Your task to perform on an android device: open app "eBay: The shopping marketplace" (install if not already installed) Image 0: 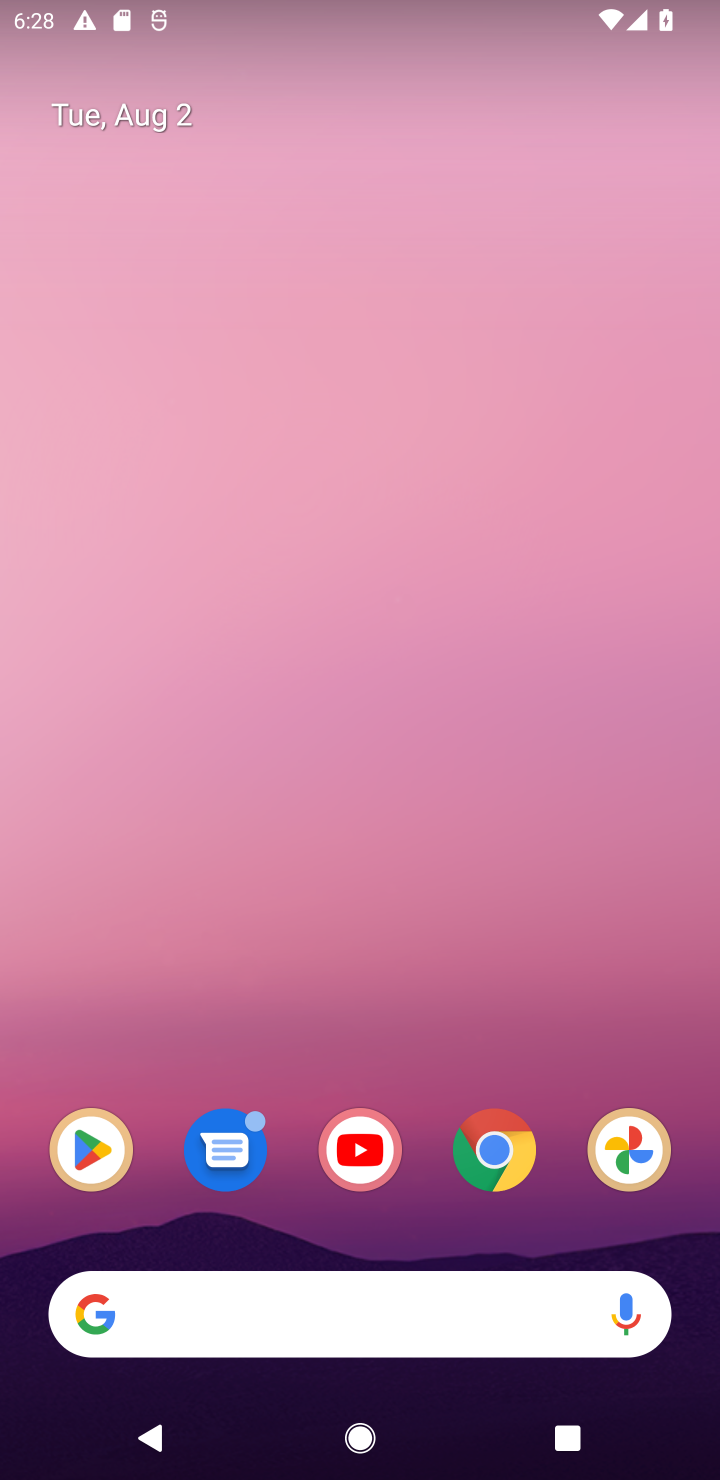
Step 0: drag from (264, 1165) to (206, 1415)
Your task to perform on an android device: open app "eBay: The shopping marketplace" (install if not already installed) Image 1: 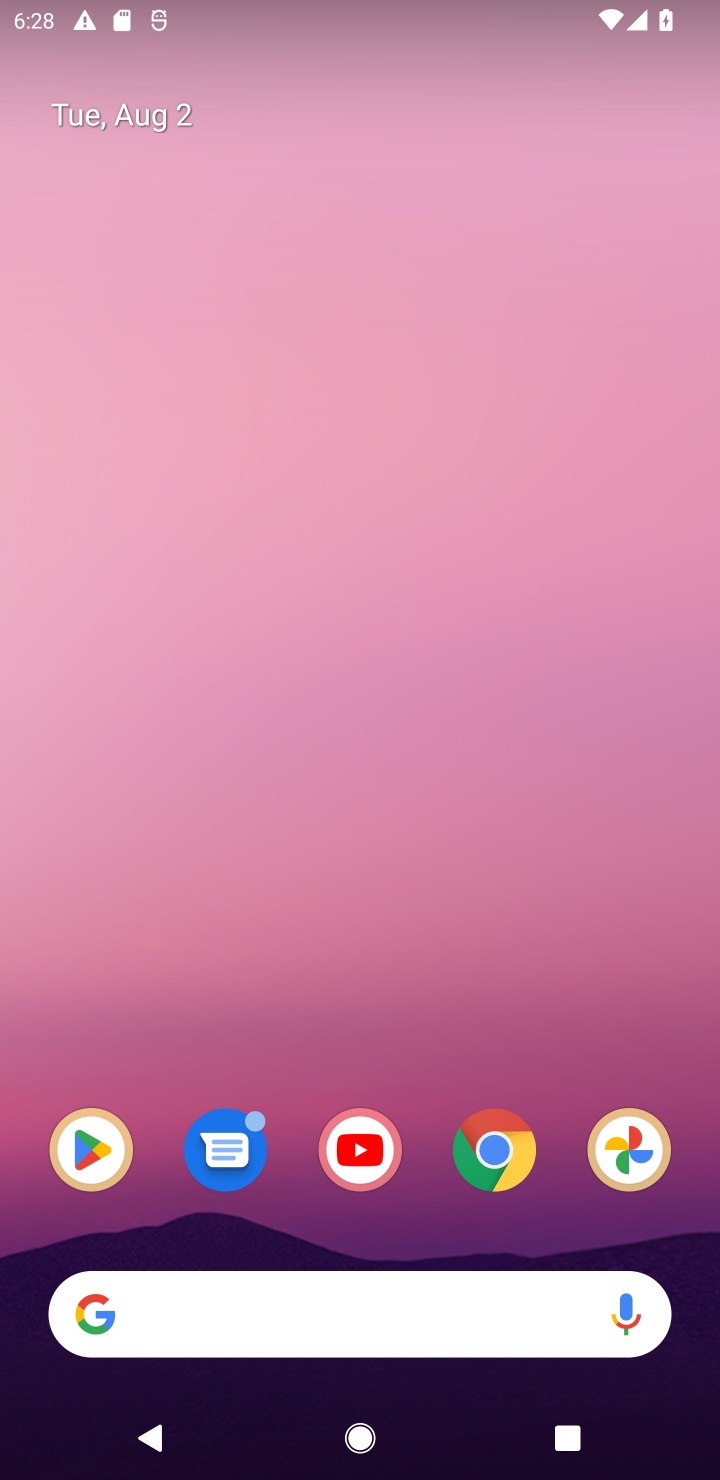
Step 1: drag from (426, 1253) to (711, 499)
Your task to perform on an android device: open app "eBay: The shopping marketplace" (install if not already installed) Image 2: 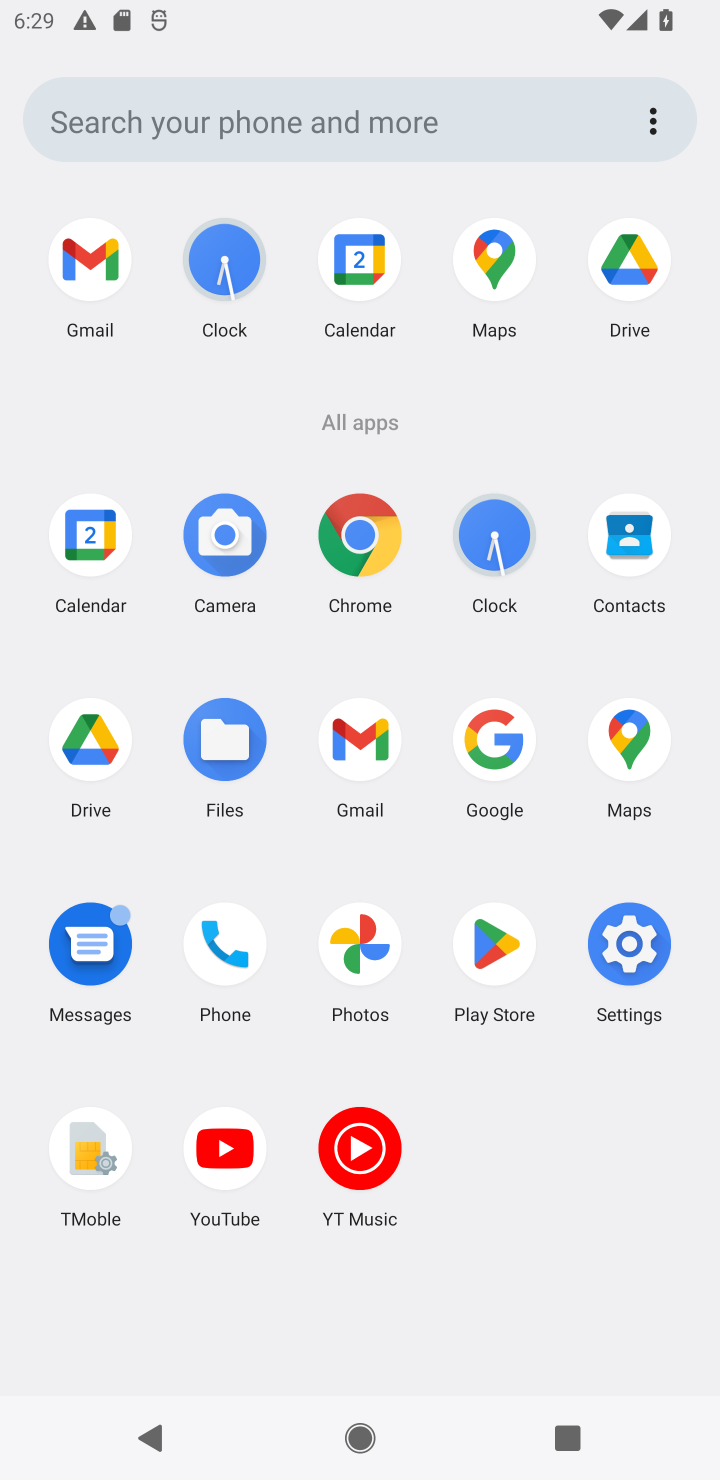
Step 2: click (488, 960)
Your task to perform on an android device: open app "eBay: The shopping marketplace" (install if not already installed) Image 3: 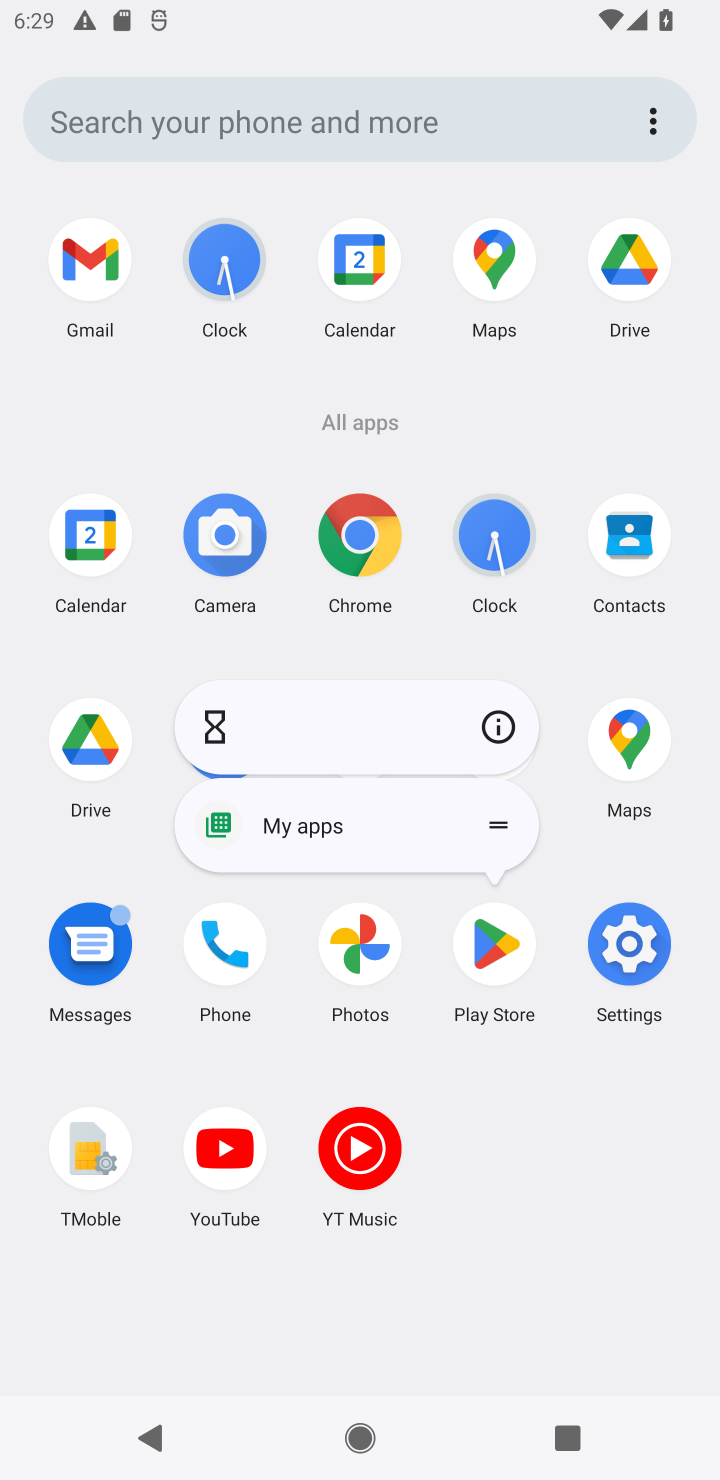
Step 3: click (488, 960)
Your task to perform on an android device: open app "eBay: The shopping marketplace" (install if not already installed) Image 4: 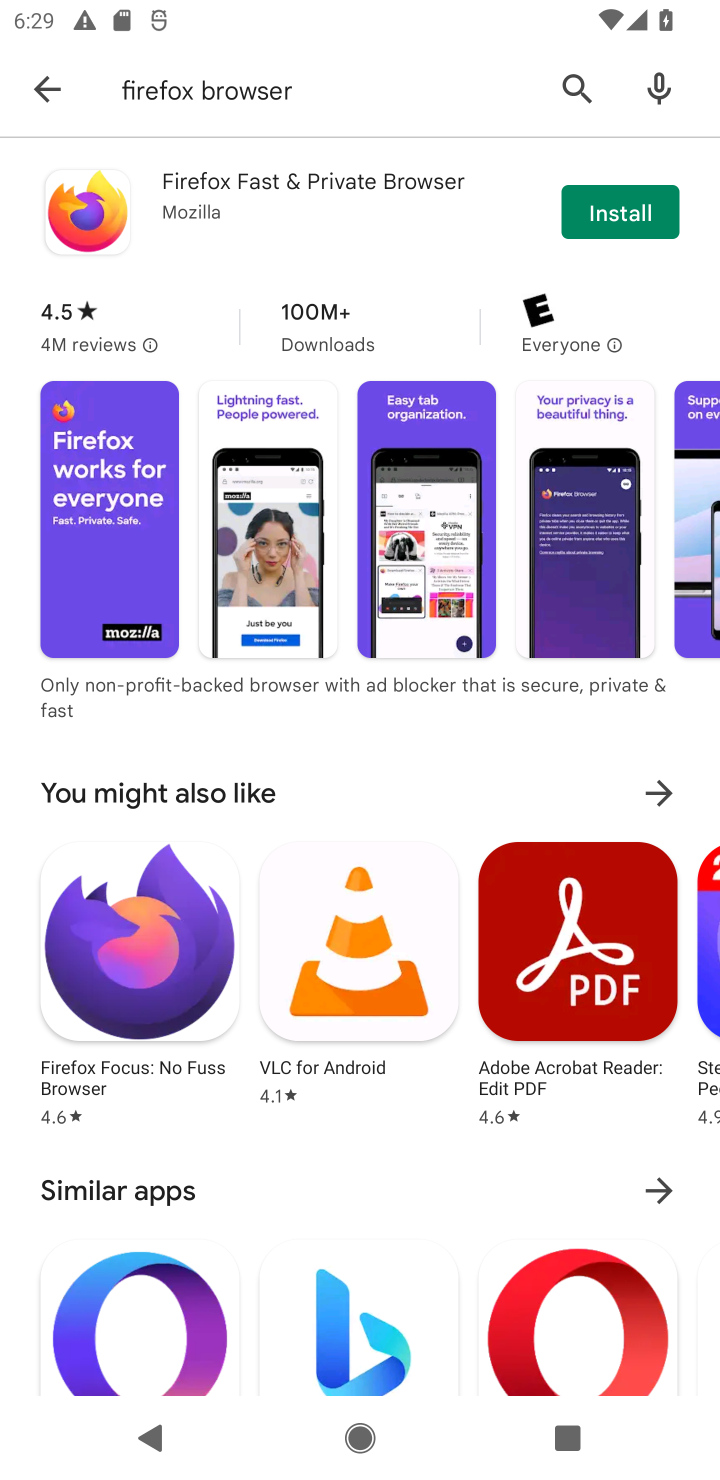
Step 4: click (49, 72)
Your task to perform on an android device: open app "eBay: The shopping marketplace" (install if not already installed) Image 5: 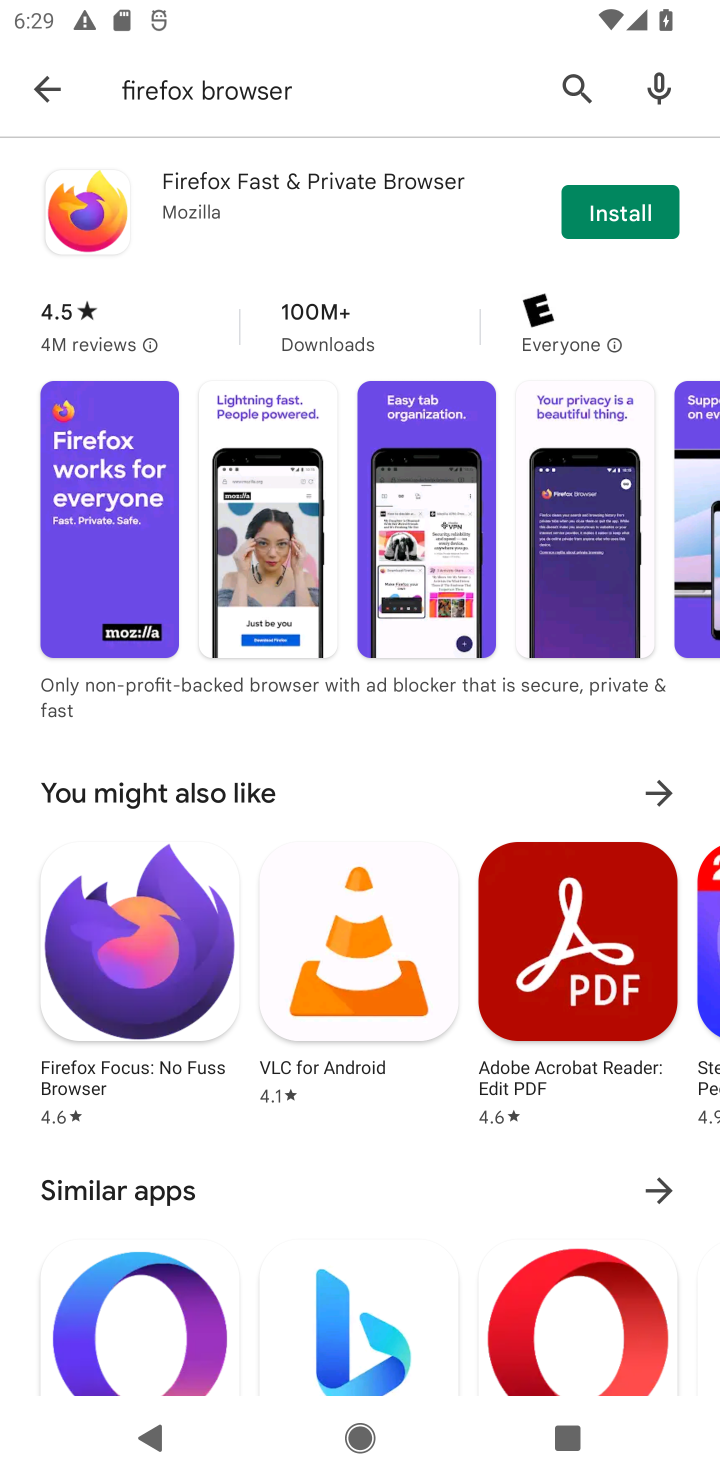
Step 5: click (41, 103)
Your task to perform on an android device: open app "eBay: The shopping marketplace" (install if not already installed) Image 6: 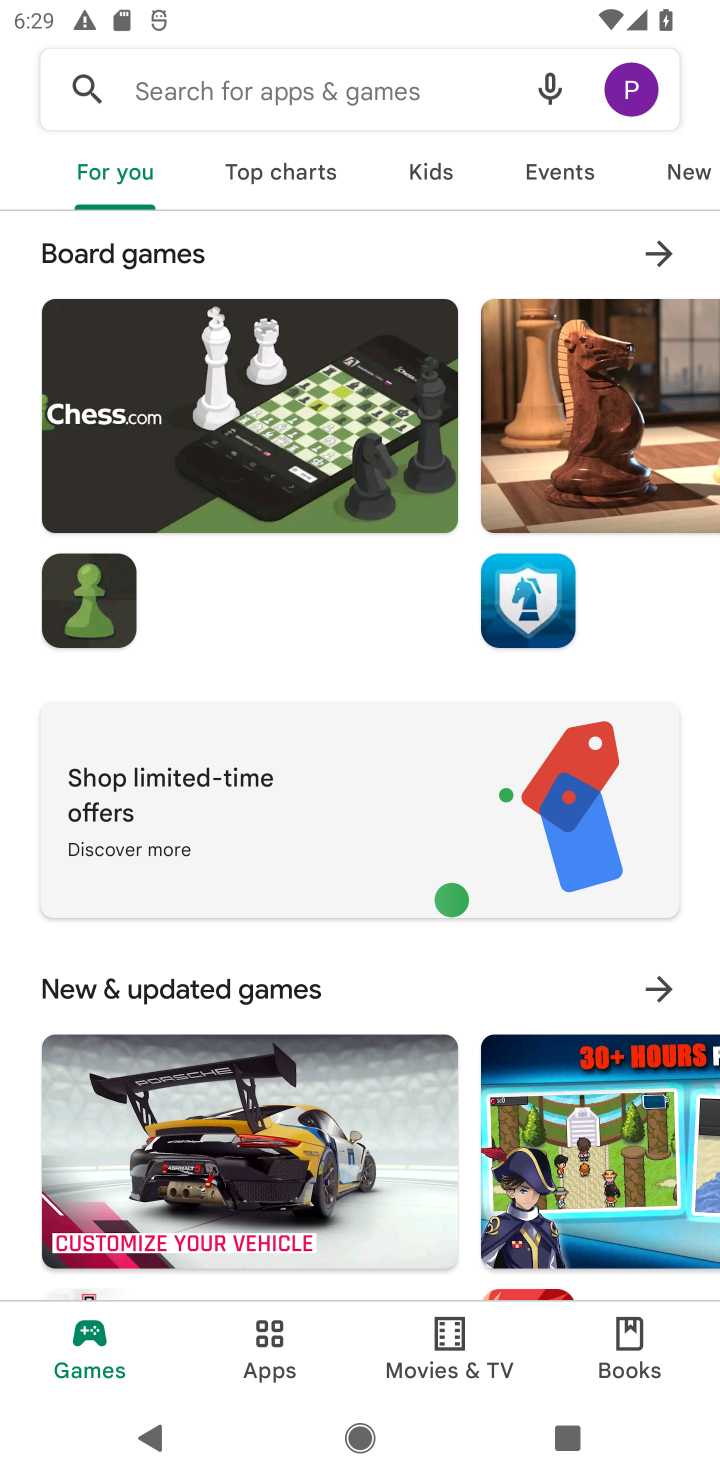
Step 6: click (134, 76)
Your task to perform on an android device: open app "eBay: The shopping marketplace" (install if not already installed) Image 7: 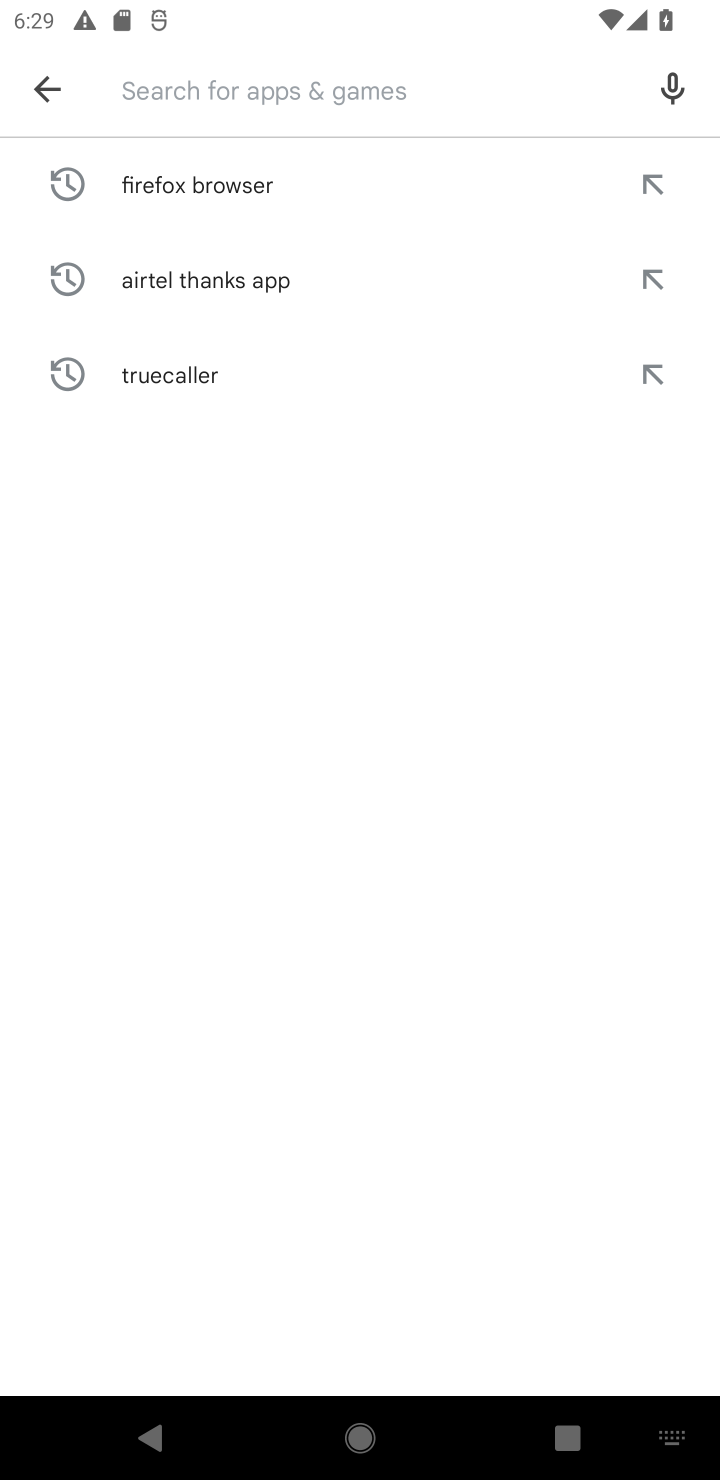
Step 7: drag from (589, 1163) to (107, 1478)
Your task to perform on an android device: open app "eBay: The shopping marketplace" (install if not already installed) Image 8: 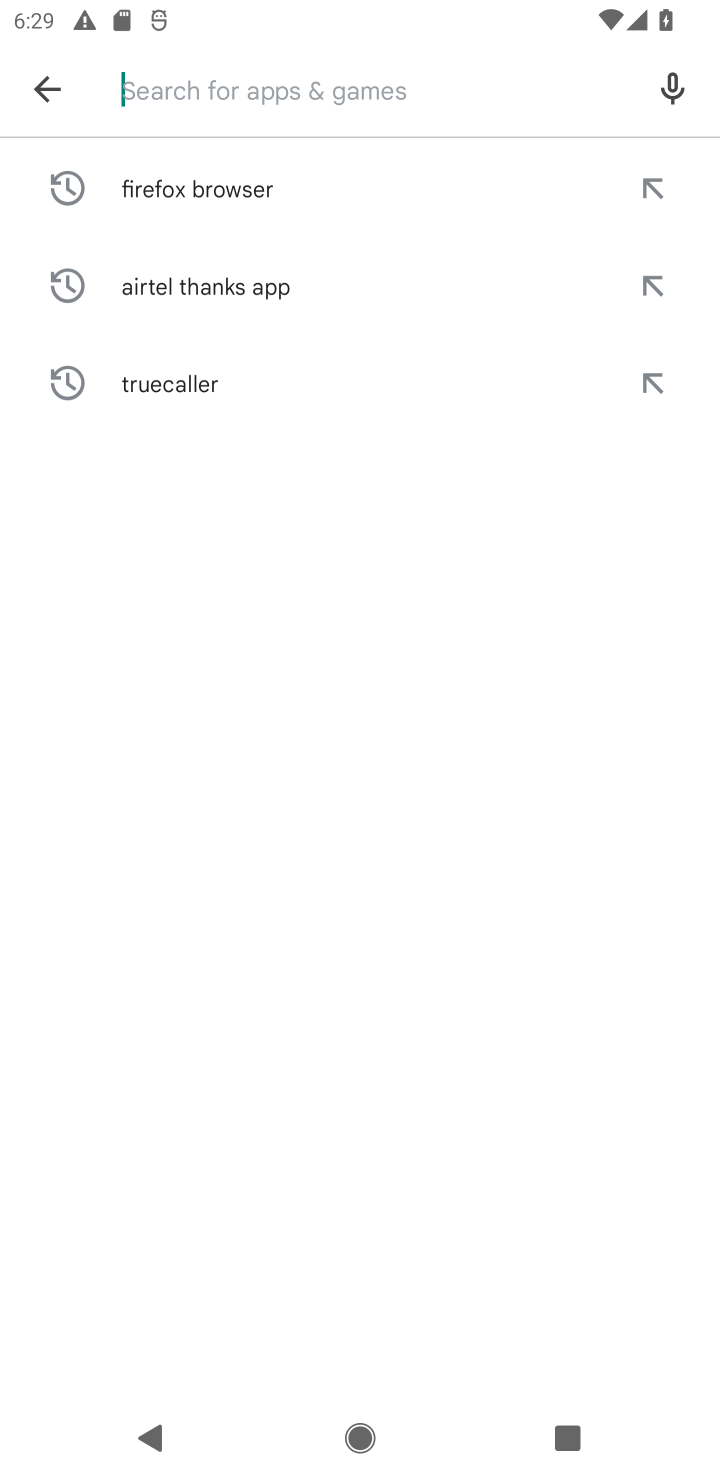
Step 8: type "eBay"
Your task to perform on an android device: open app "eBay: The shopping marketplace" (install if not already installed) Image 9: 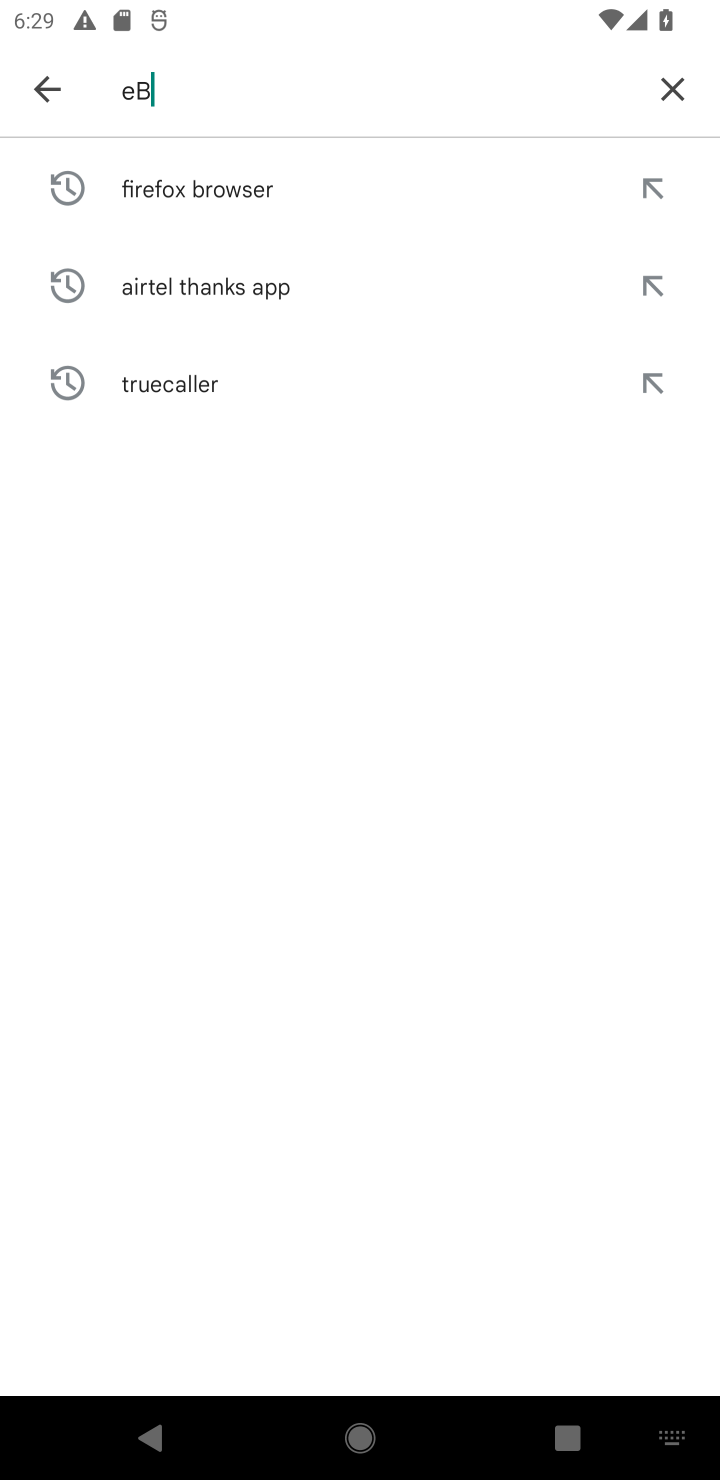
Step 9: type ""
Your task to perform on an android device: open app "eBay: The shopping marketplace" (install if not already installed) Image 10: 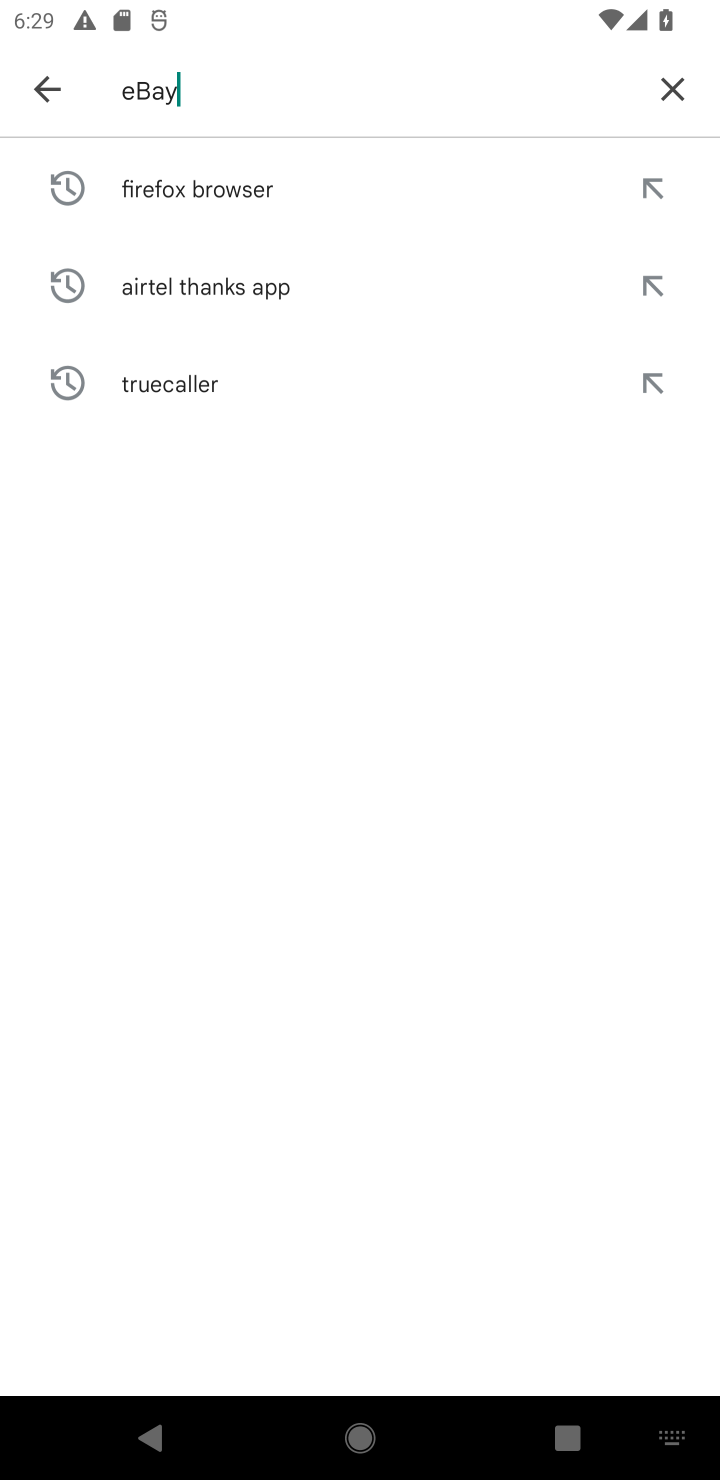
Step 10: drag from (107, 1478) to (590, 386)
Your task to perform on an android device: open app "eBay: The shopping marketplace" (install if not already installed) Image 11: 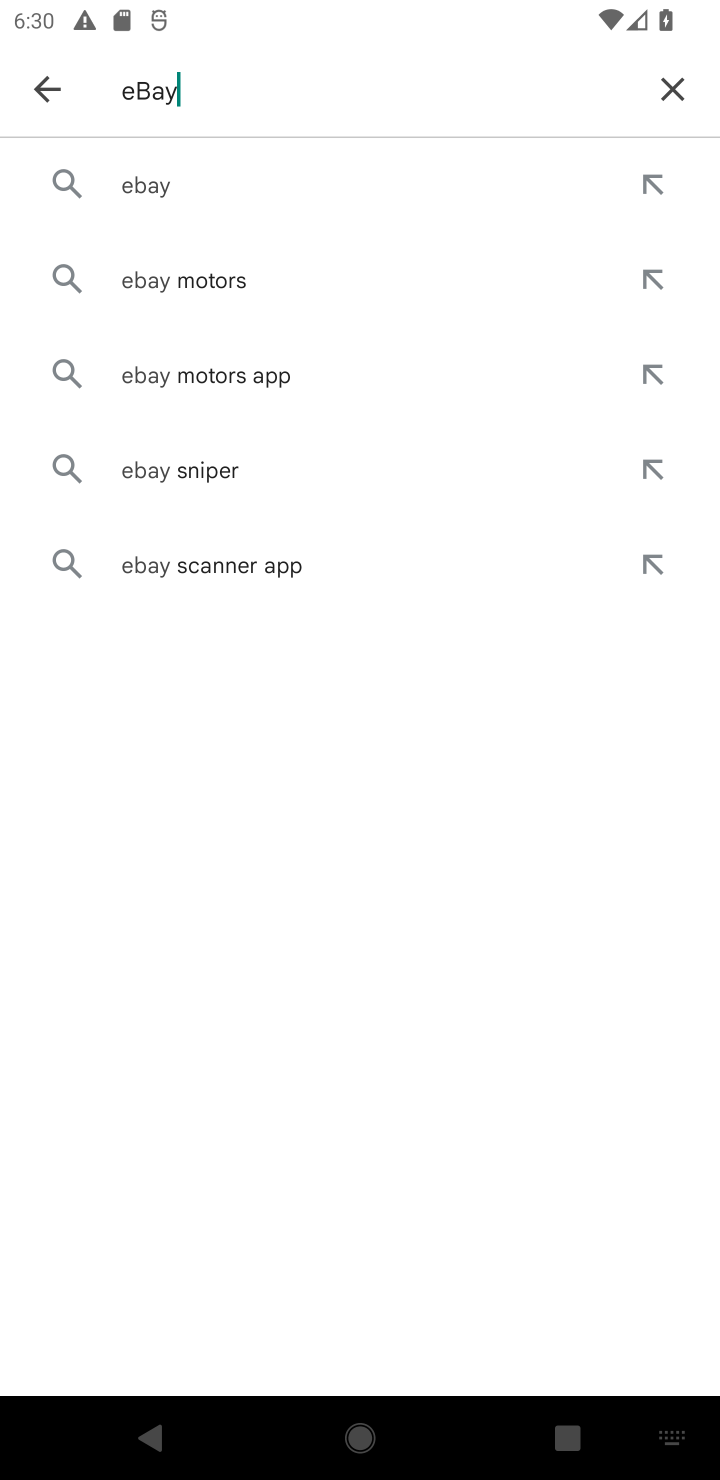
Step 11: click (190, 171)
Your task to perform on an android device: open app "eBay: The shopping marketplace" (install if not already installed) Image 12: 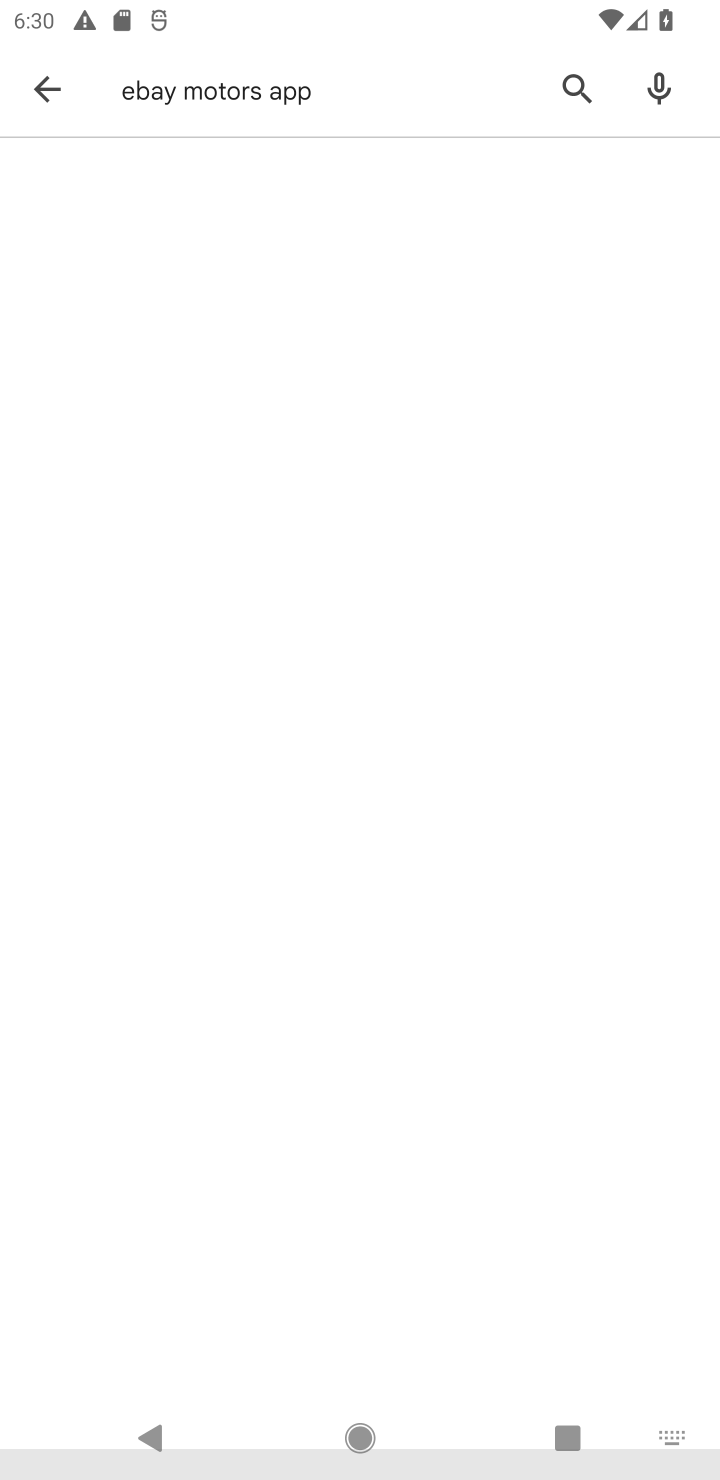
Step 12: task complete